Your task to perform on an android device: turn on bluetooth scan Image 0: 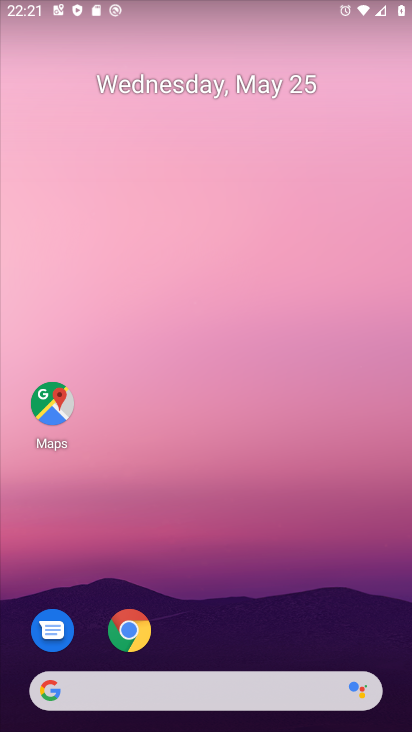
Step 0: drag from (221, 643) to (239, 248)
Your task to perform on an android device: turn on bluetooth scan Image 1: 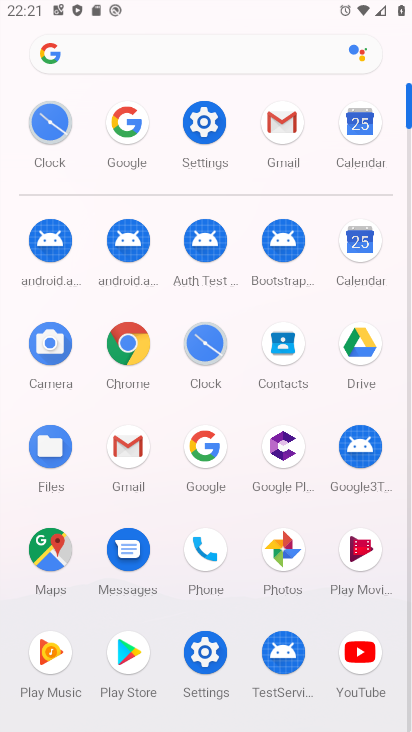
Step 1: click (205, 115)
Your task to perform on an android device: turn on bluetooth scan Image 2: 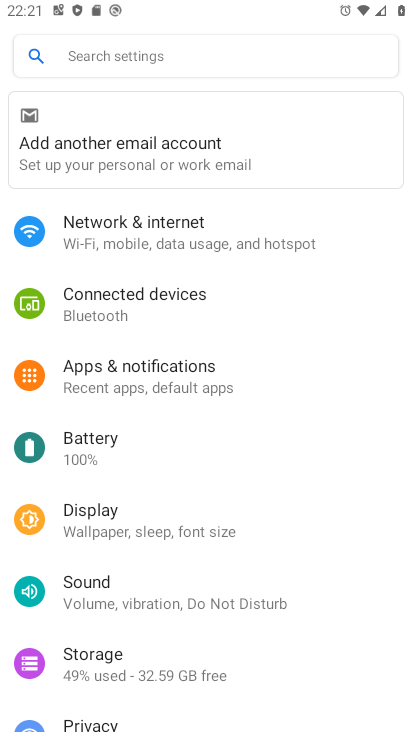
Step 2: drag from (189, 674) to (209, 325)
Your task to perform on an android device: turn on bluetooth scan Image 3: 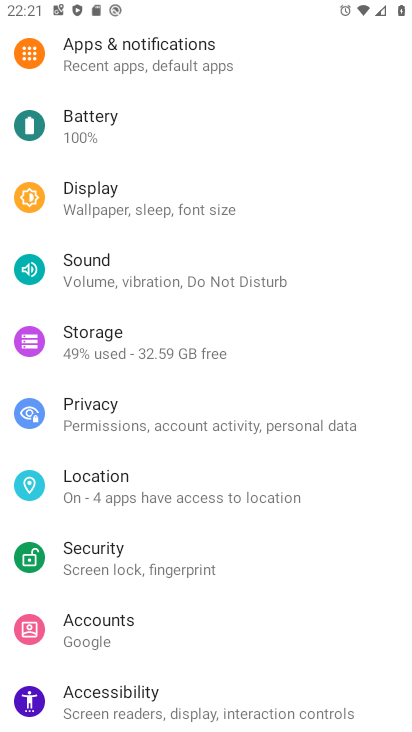
Step 3: click (132, 501)
Your task to perform on an android device: turn on bluetooth scan Image 4: 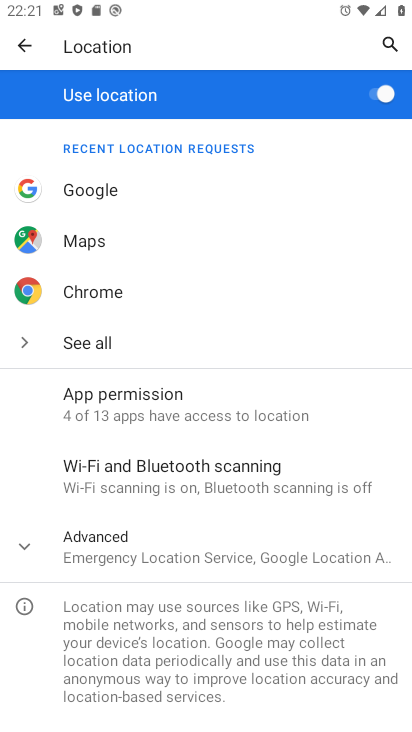
Step 4: click (312, 473)
Your task to perform on an android device: turn on bluetooth scan Image 5: 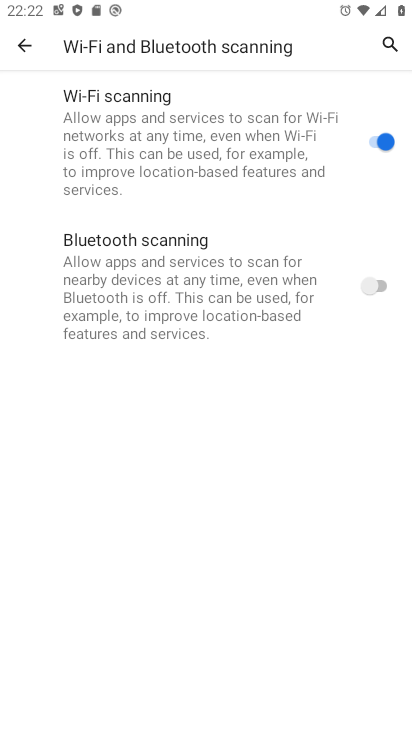
Step 5: click (376, 280)
Your task to perform on an android device: turn on bluetooth scan Image 6: 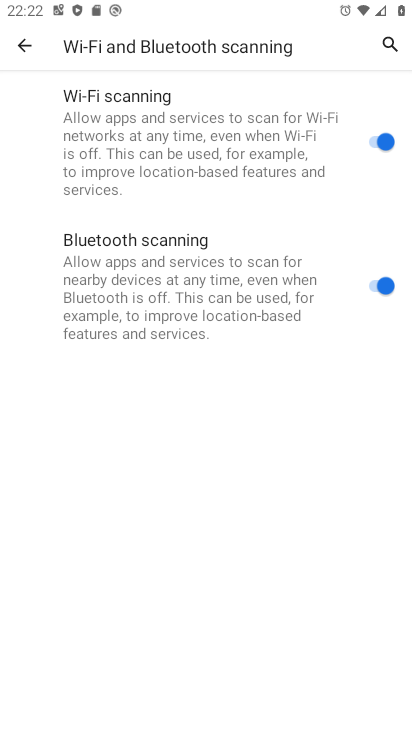
Step 6: task complete